Your task to perform on an android device: Open the stopwatch Image 0: 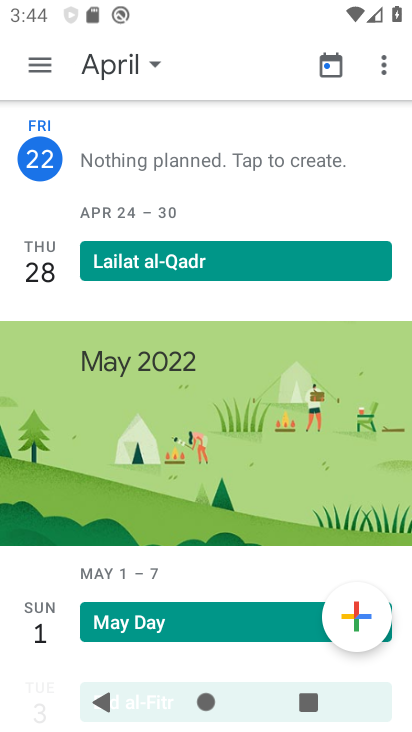
Step 0: press home button
Your task to perform on an android device: Open the stopwatch Image 1: 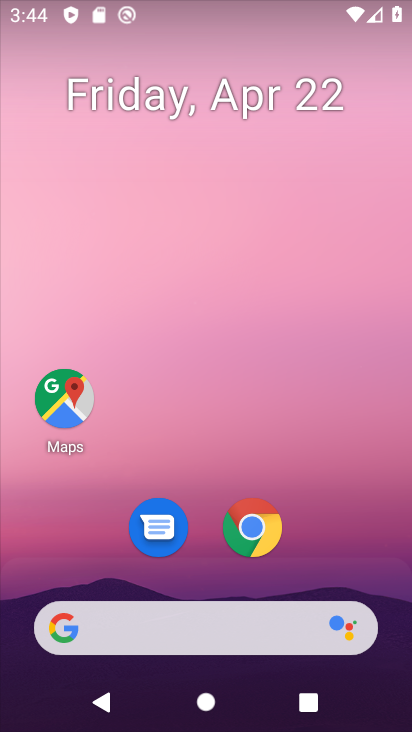
Step 1: drag from (341, 564) to (290, 2)
Your task to perform on an android device: Open the stopwatch Image 2: 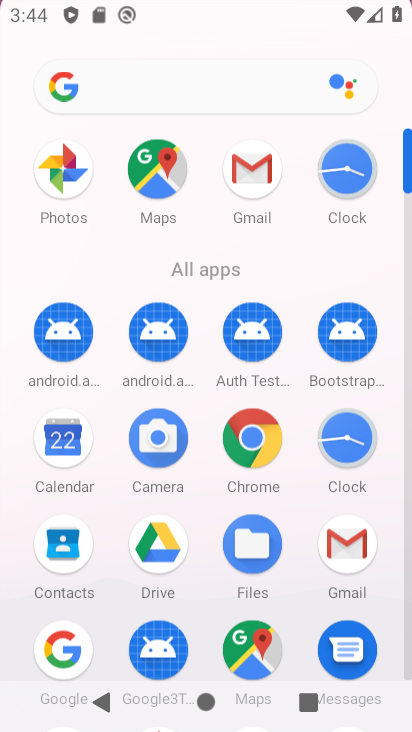
Step 2: click (360, 166)
Your task to perform on an android device: Open the stopwatch Image 3: 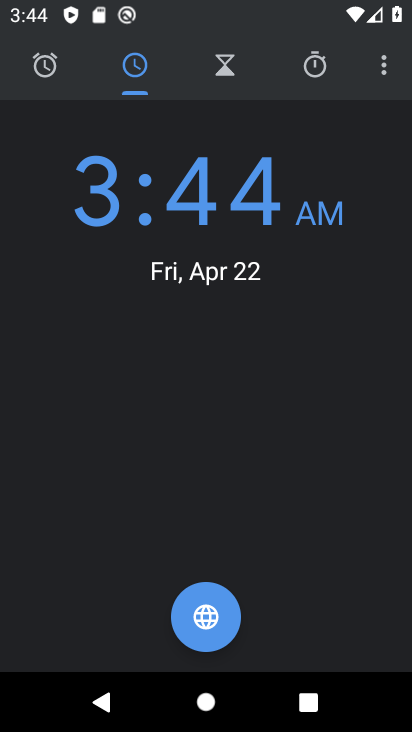
Step 3: click (317, 66)
Your task to perform on an android device: Open the stopwatch Image 4: 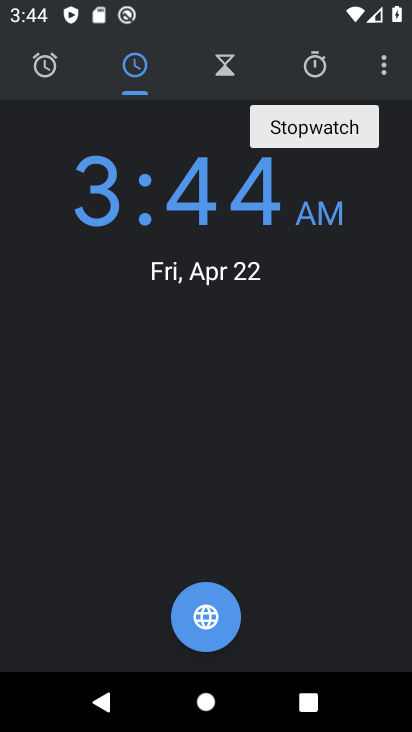
Step 4: click (323, 68)
Your task to perform on an android device: Open the stopwatch Image 5: 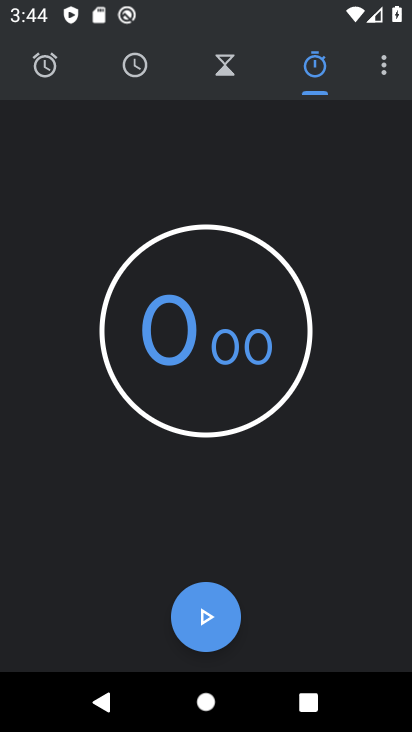
Step 5: task complete